Your task to perform on an android device: Is it going to rain this weekend? Image 0: 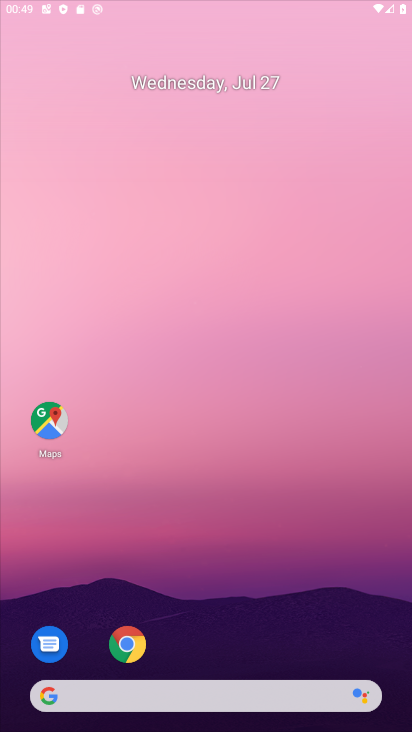
Step 0: click (212, 373)
Your task to perform on an android device: Is it going to rain this weekend? Image 1: 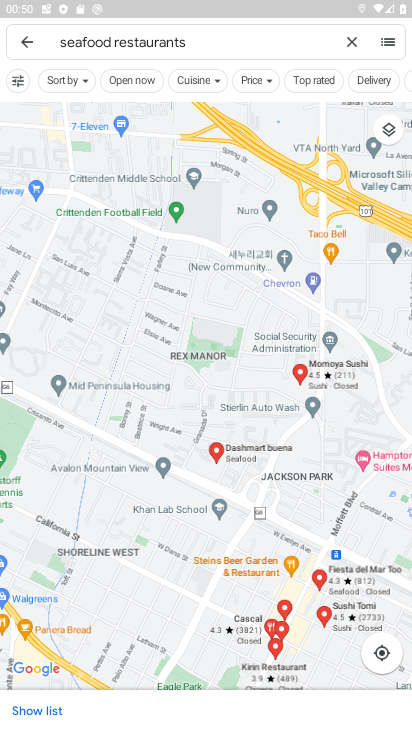
Step 1: drag from (233, 555) to (294, 137)
Your task to perform on an android device: Is it going to rain this weekend? Image 2: 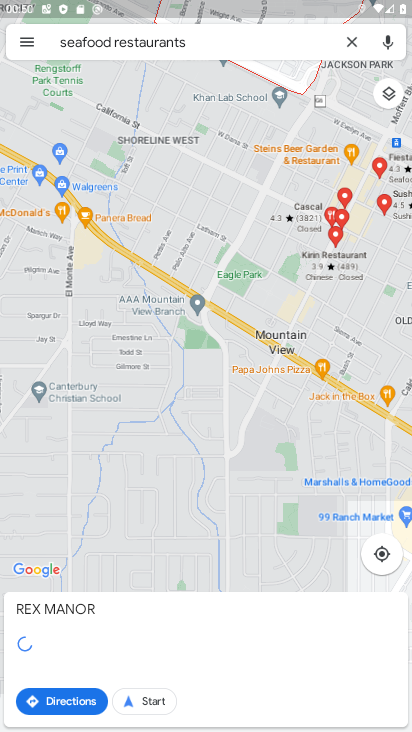
Step 2: press back button
Your task to perform on an android device: Is it going to rain this weekend? Image 3: 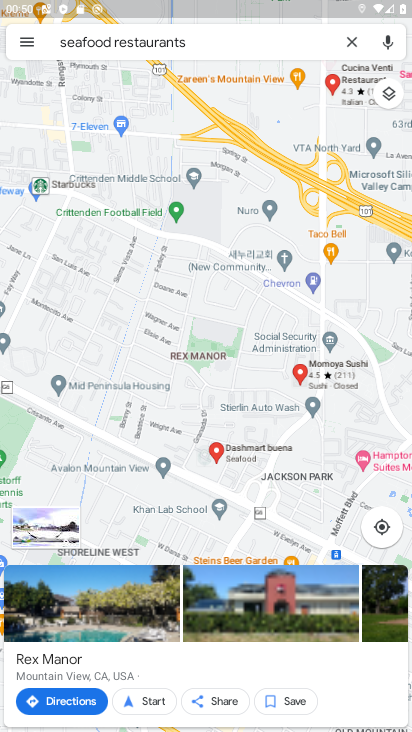
Step 3: click (351, 44)
Your task to perform on an android device: Is it going to rain this weekend? Image 4: 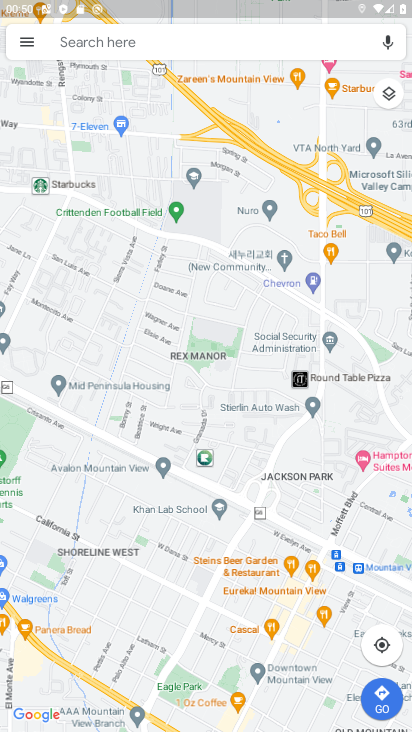
Step 4: press home button
Your task to perform on an android device: Is it going to rain this weekend? Image 5: 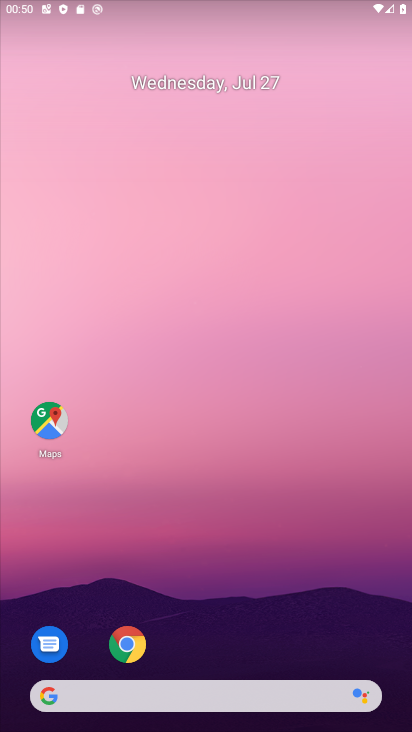
Step 5: drag from (165, 507) to (139, 321)
Your task to perform on an android device: Is it going to rain this weekend? Image 6: 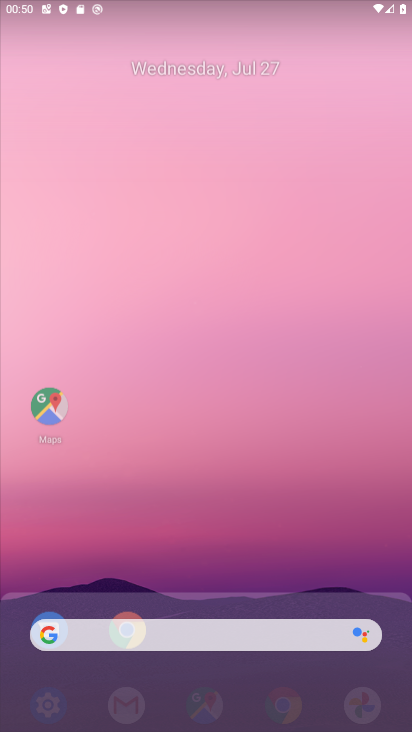
Step 6: drag from (216, 547) to (164, 27)
Your task to perform on an android device: Is it going to rain this weekend? Image 7: 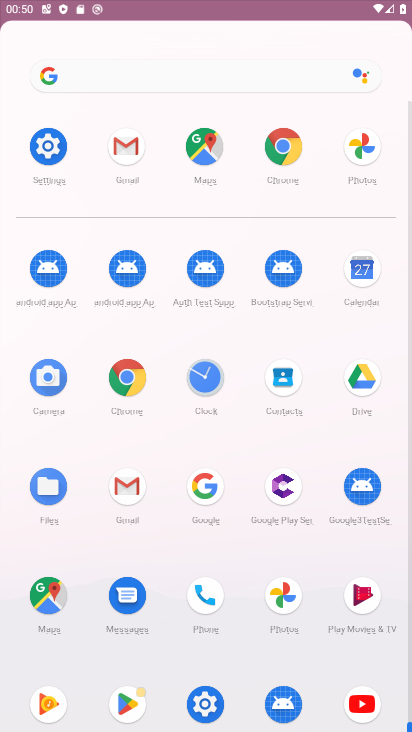
Step 7: drag from (297, 643) to (216, 108)
Your task to perform on an android device: Is it going to rain this weekend? Image 8: 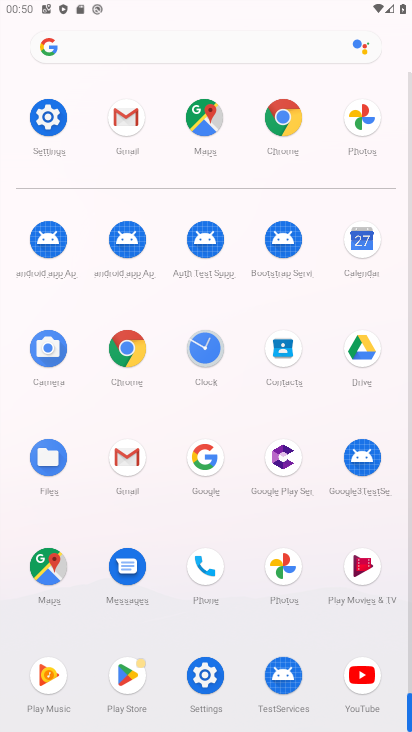
Step 8: drag from (218, 490) to (132, 41)
Your task to perform on an android device: Is it going to rain this weekend? Image 9: 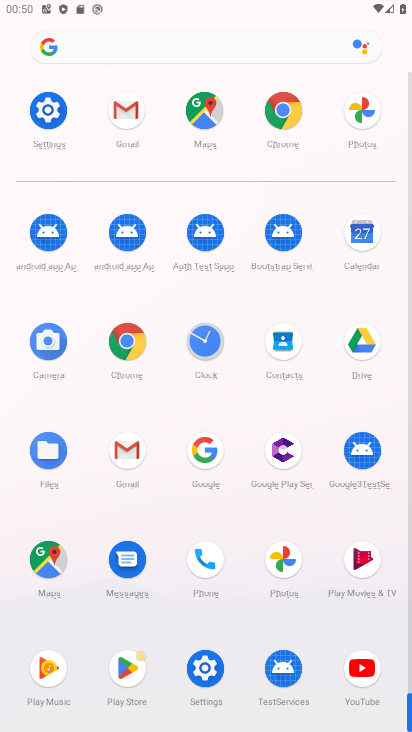
Step 9: click (360, 235)
Your task to perform on an android device: Is it going to rain this weekend? Image 10: 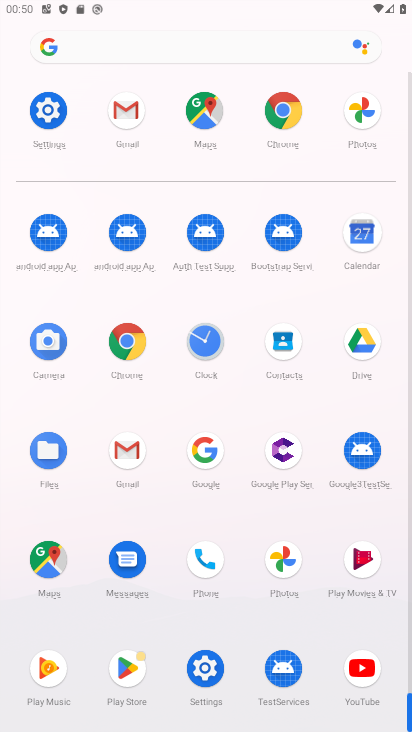
Step 10: click (356, 233)
Your task to perform on an android device: Is it going to rain this weekend? Image 11: 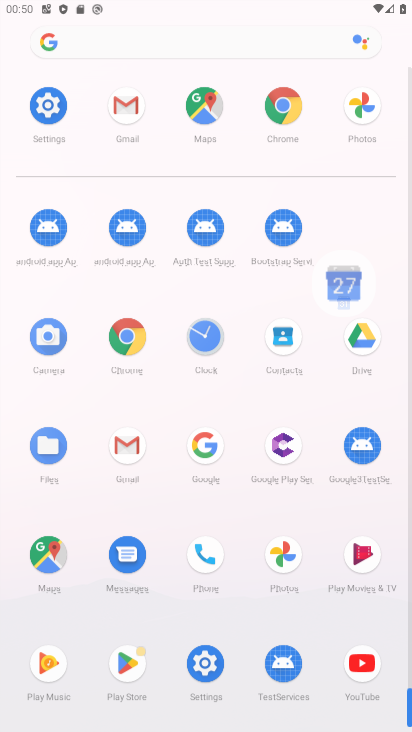
Step 11: click (356, 232)
Your task to perform on an android device: Is it going to rain this weekend? Image 12: 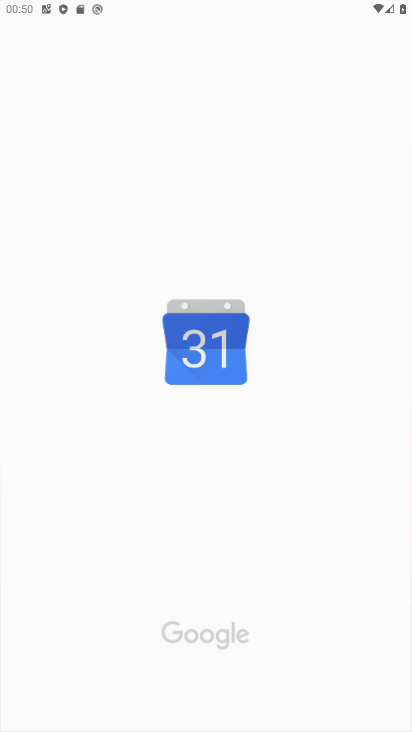
Step 12: click (356, 232)
Your task to perform on an android device: Is it going to rain this weekend? Image 13: 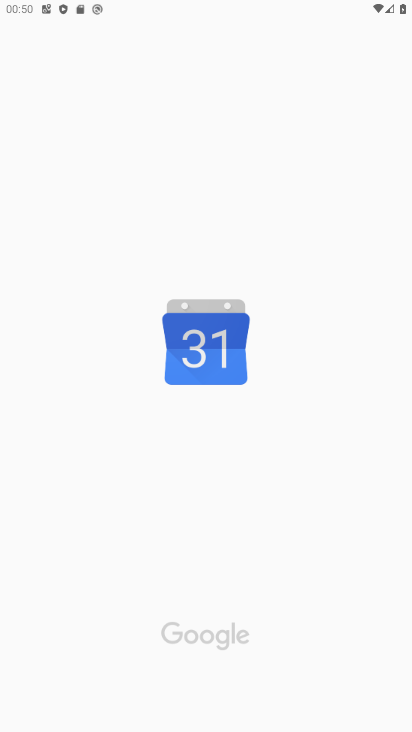
Step 13: click (355, 231)
Your task to perform on an android device: Is it going to rain this weekend? Image 14: 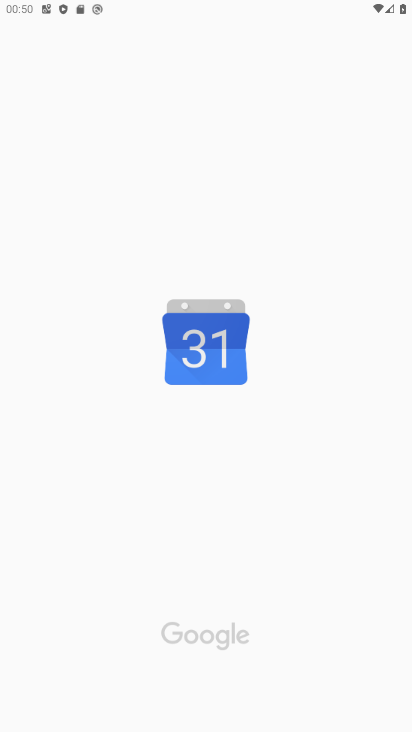
Step 14: click (351, 222)
Your task to perform on an android device: Is it going to rain this weekend? Image 15: 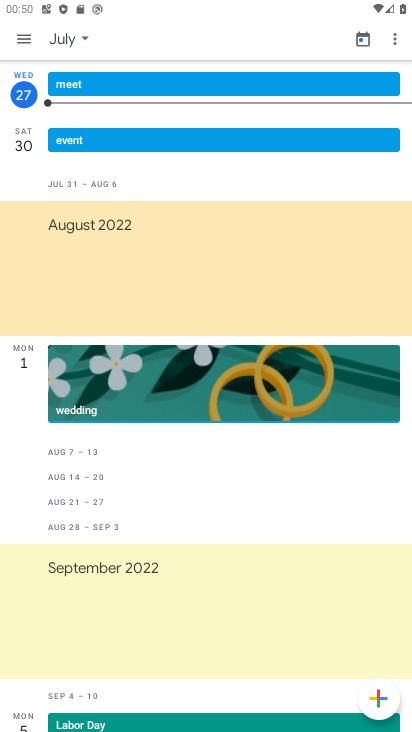
Step 15: click (76, 39)
Your task to perform on an android device: Is it going to rain this weekend? Image 16: 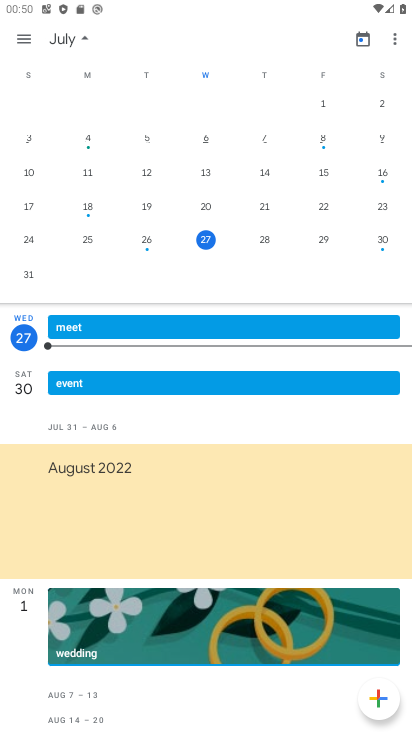
Step 16: drag from (257, 203) to (38, 120)
Your task to perform on an android device: Is it going to rain this weekend? Image 17: 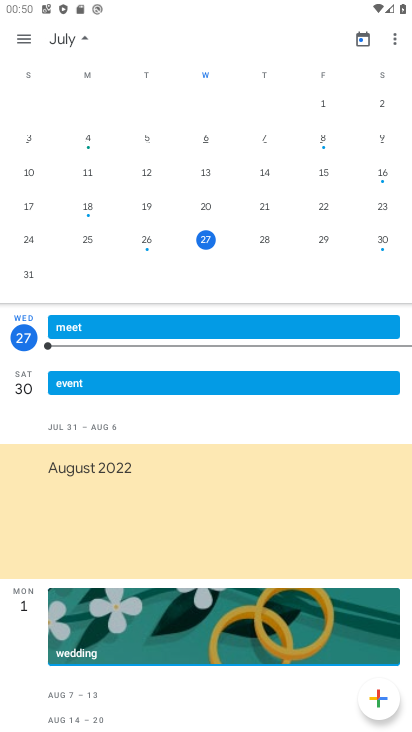
Step 17: drag from (296, 219) to (2, 147)
Your task to perform on an android device: Is it going to rain this weekend? Image 18: 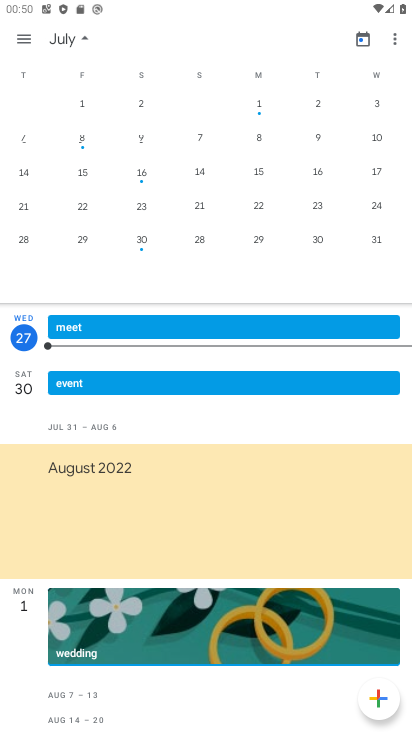
Step 18: drag from (231, 150) to (39, 124)
Your task to perform on an android device: Is it going to rain this weekend? Image 19: 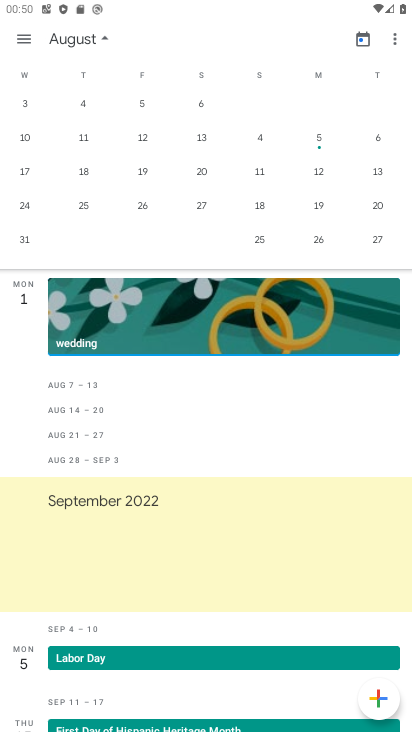
Step 19: drag from (242, 124) to (0, 101)
Your task to perform on an android device: Is it going to rain this weekend? Image 20: 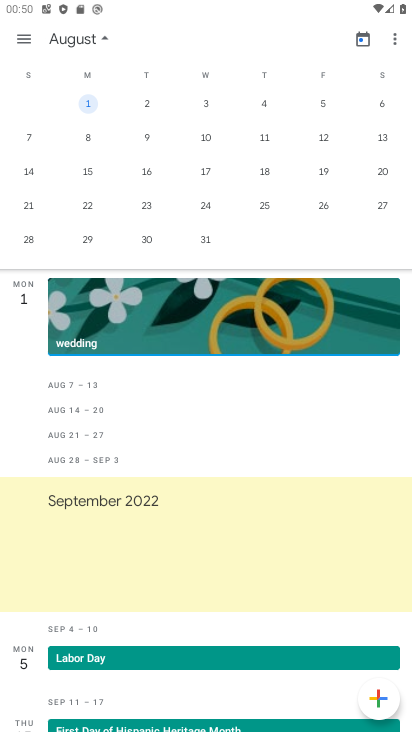
Step 20: press back button
Your task to perform on an android device: Is it going to rain this weekend? Image 21: 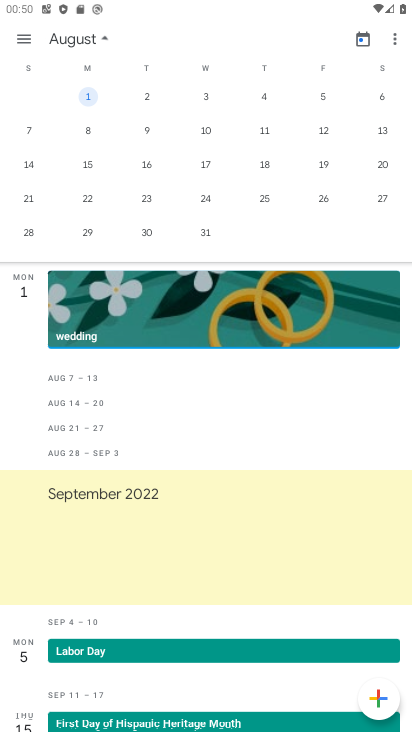
Step 21: press back button
Your task to perform on an android device: Is it going to rain this weekend? Image 22: 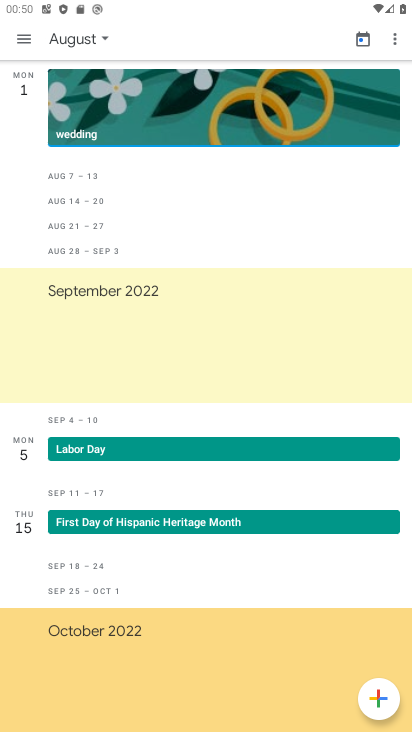
Step 22: press back button
Your task to perform on an android device: Is it going to rain this weekend? Image 23: 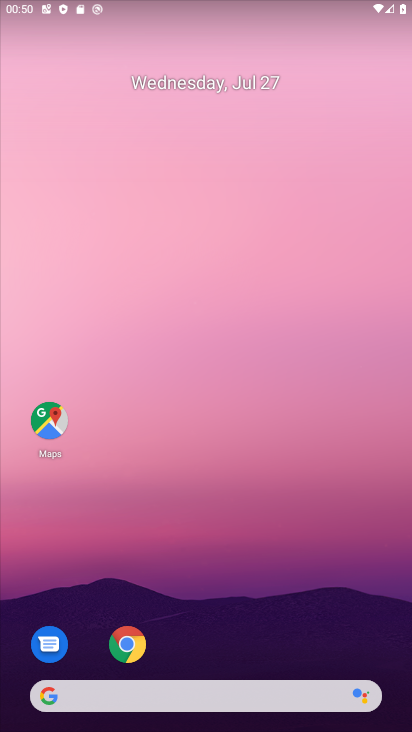
Step 23: drag from (252, 597) to (193, 74)
Your task to perform on an android device: Is it going to rain this weekend? Image 24: 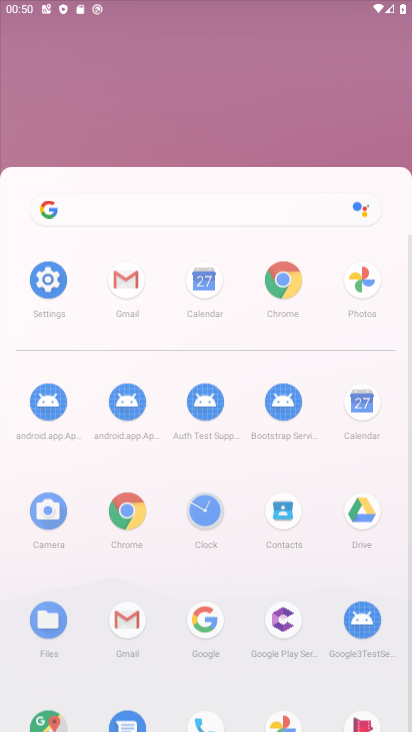
Step 24: drag from (266, 438) to (186, 111)
Your task to perform on an android device: Is it going to rain this weekend? Image 25: 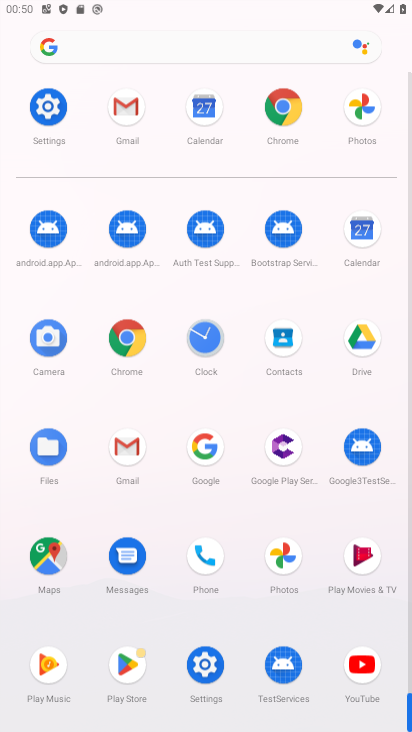
Step 25: drag from (235, 479) to (235, 118)
Your task to perform on an android device: Is it going to rain this weekend? Image 26: 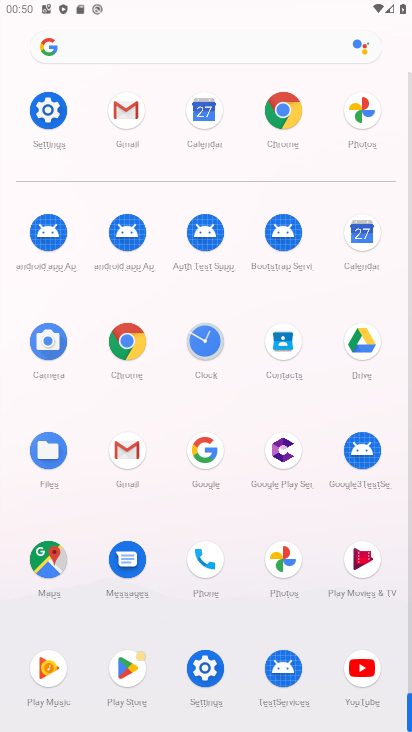
Step 26: click (282, 106)
Your task to perform on an android device: Is it going to rain this weekend? Image 27: 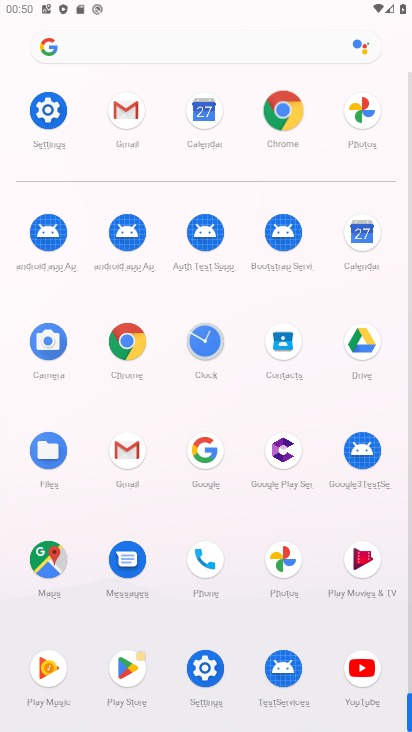
Step 27: click (289, 108)
Your task to perform on an android device: Is it going to rain this weekend? Image 28: 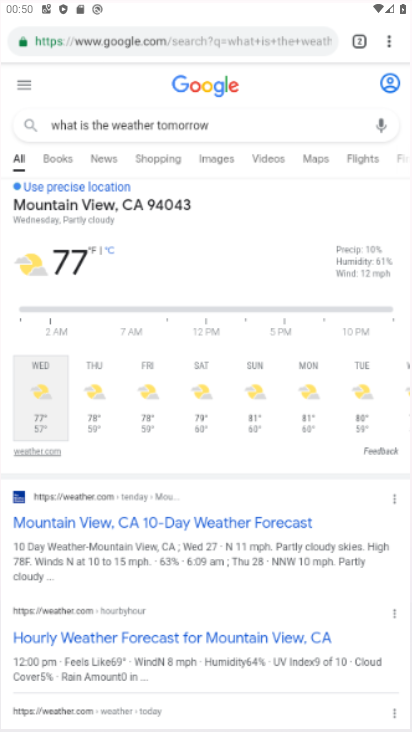
Step 28: click (296, 118)
Your task to perform on an android device: Is it going to rain this weekend? Image 29: 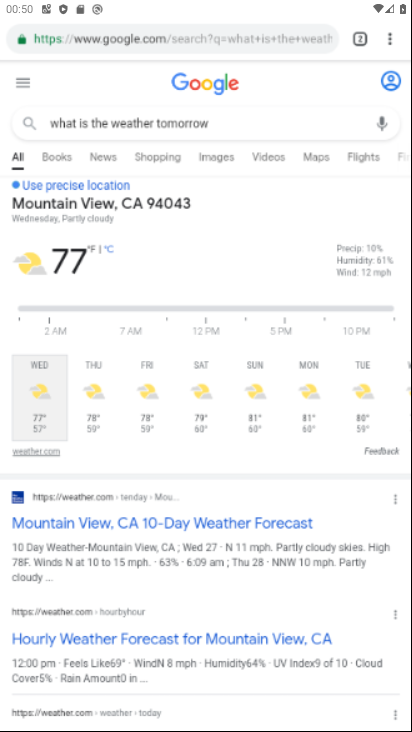
Step 29: click (297, 116)
Your task to perform on an android device: Is it going to rain this weekend? Image 30: 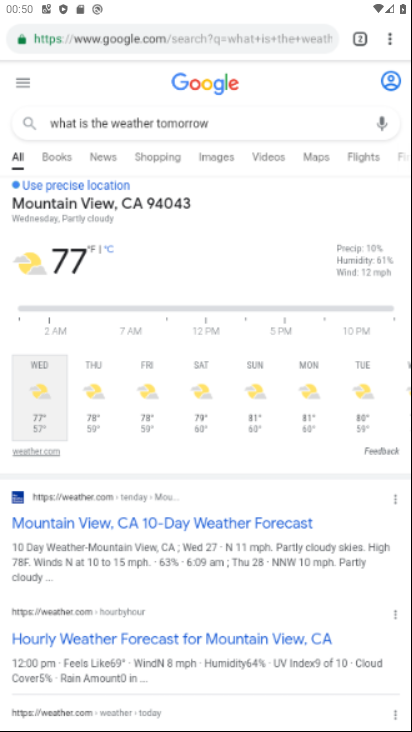
Step 30: click (298, 111)
Your task to perform on an android device: Is it going to rain this weekend? Image 31: 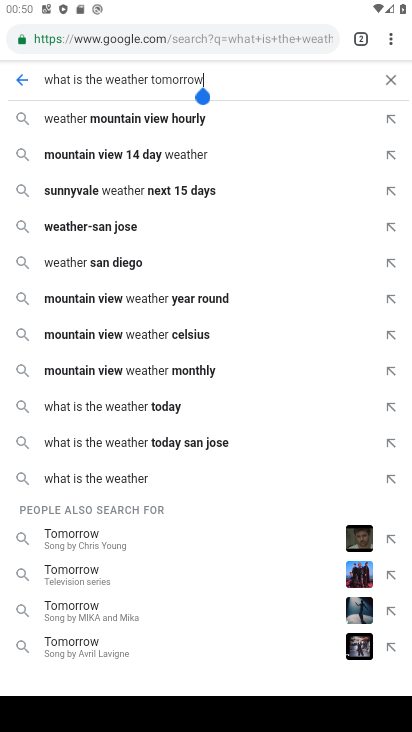
Step 31: task complete